Your task to perform on an android device: Open calendar and show me the second week of next month Image 0: 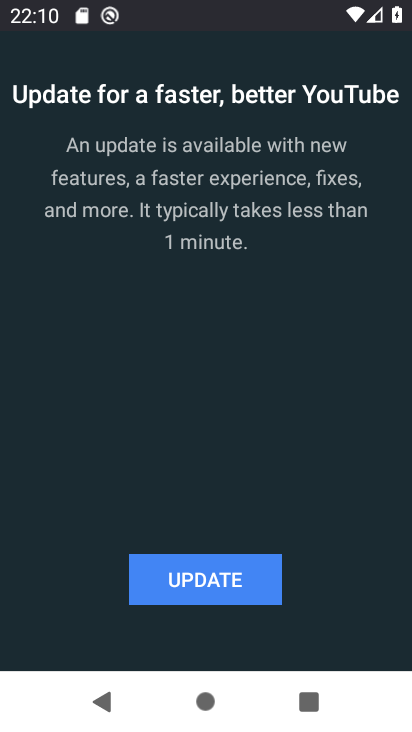
Step 0: press home button
Your task to perform on an android device: Open calendar and show me the second week of next month Image 1: 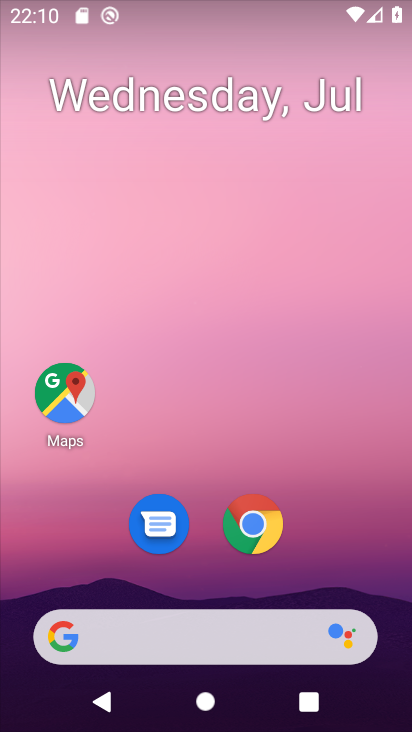
Step 1: drag from (324, 530) to (299, 56)
Your task to perform on an android device: Open calendar and show me the second week of next month Image 2: 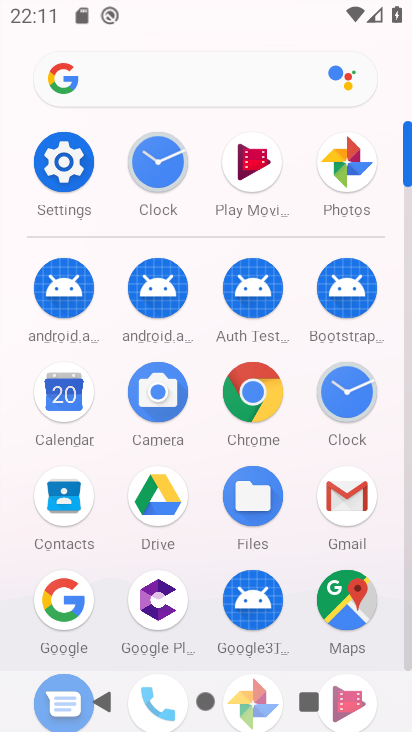
Step 2: click (70, 385)
Your task to perform on an android device: Open calendar and show me the second week of next month Image 3: 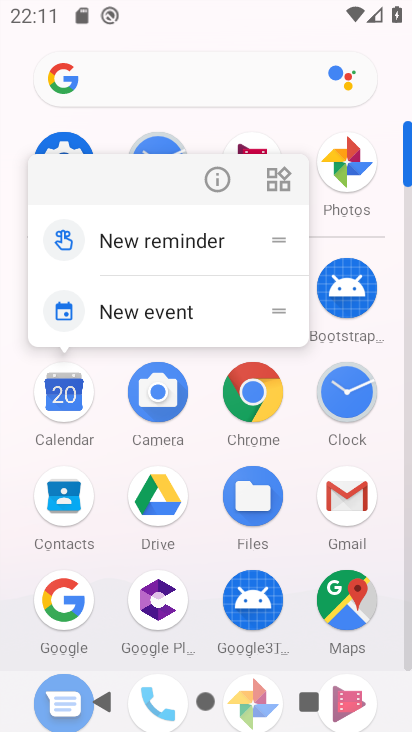
Step 3: click (70, 394)
Your task to perform on an android device: Open calendar and show me the second week of next month Image 4: 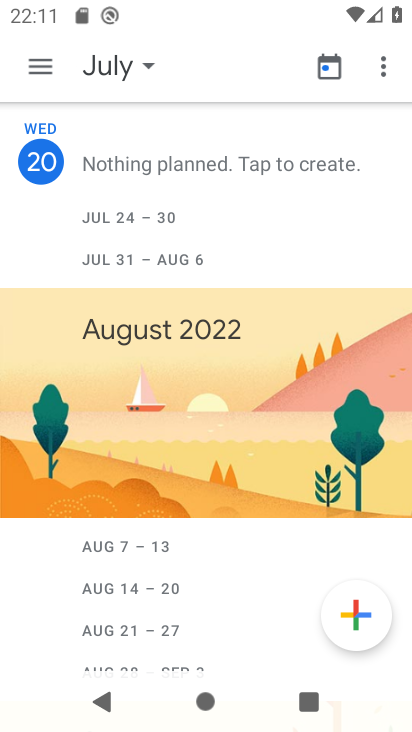
Step 4: click (45, 67)
Your task to perform on an android device: Open calendar and show me the second week of next month Image 5: 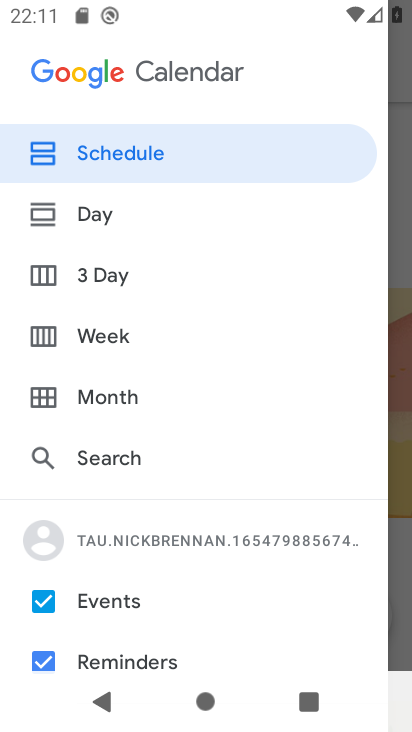
Step 5: click (51, 333)
Your task to perform on an android device: Open calendar and show me the second week of next month Image 6: 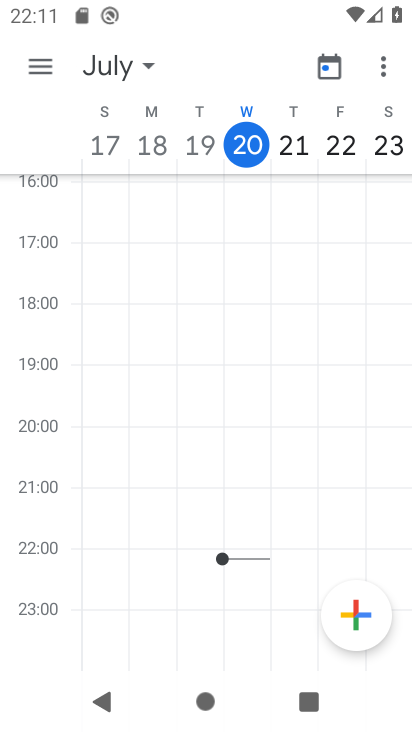
Step 6: task complete